Your task to perform on an android device: Open the calendar app, open the side menu, and click the "Day" option Image 0: 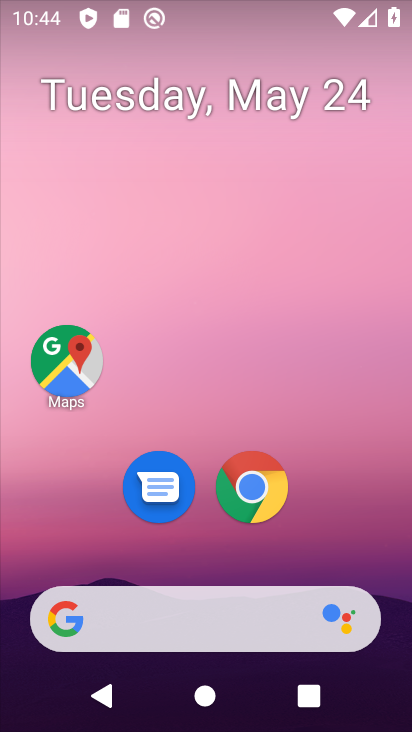
Step 0: drag from (189, 561) to (219, 90)
Your task to perform on an android device: Open the calendar app, open the side menu, and click the "Day" option Image 1: 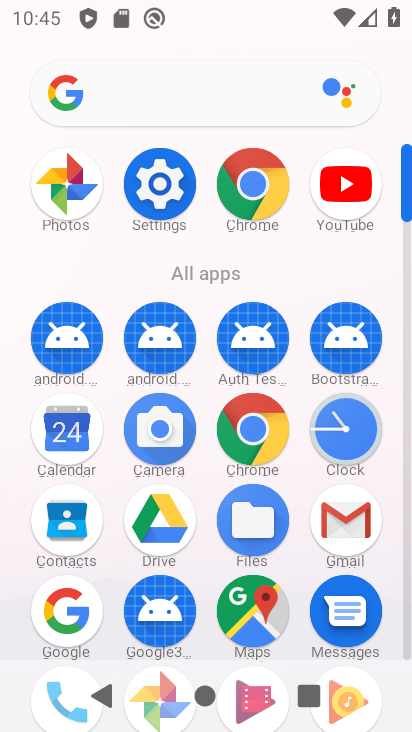
Step 1: click (60, 437)
Your task to perform on an android device: Open the calendar app, open the side menu, and click the "Day" option Image 2: 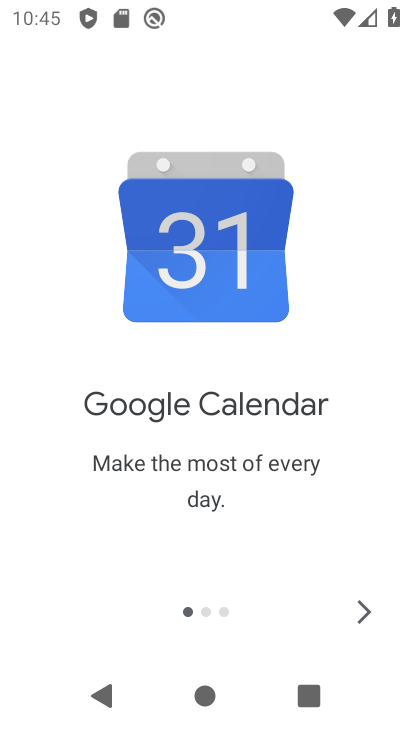
Step 2: click (359, 609)
Your task to perform on an android device: Open the calendar app, open the side menu, and click the "Day" option Image 3: 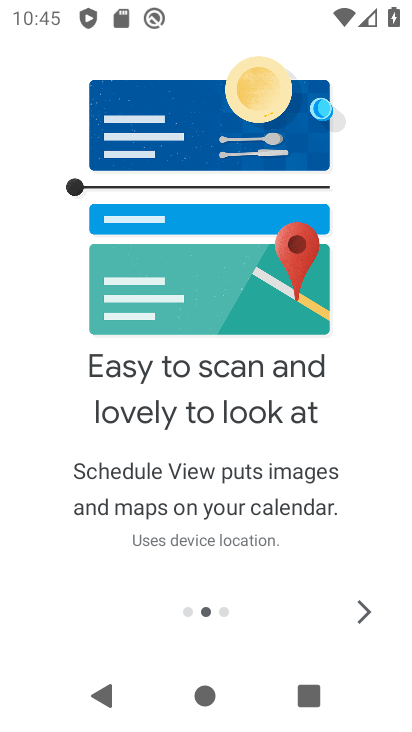
Step 3: click (357, 603)
Your task to perform on an android device: Open the calendar app, open the side menu, and click the "Day" option Image 4: 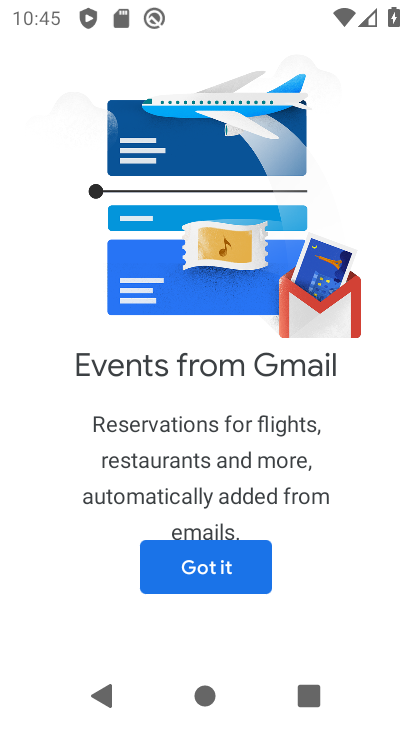
Step 4: click (246, 572)
Your task to perform on an android device: Open the calendar app, open the side menu, and click the "Day" option Image 5: 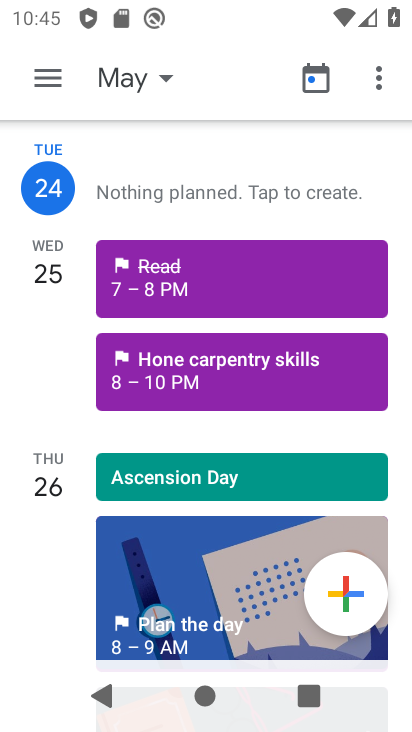
Step 5: click (46, 72)
Your task to perform on an android device: Open the calendar app, open the side menu, and click the "Day" option Image 6: 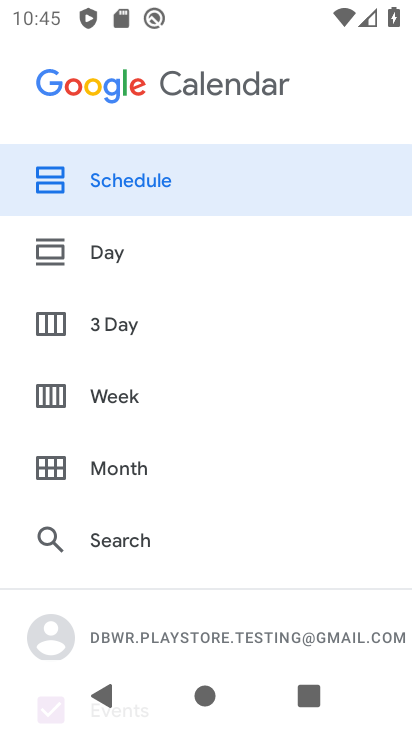
Step 6: click (105, 251)
Your task to perform on an android device: Open the calendar app, open the side menu, and click the "Day" option Image 7: 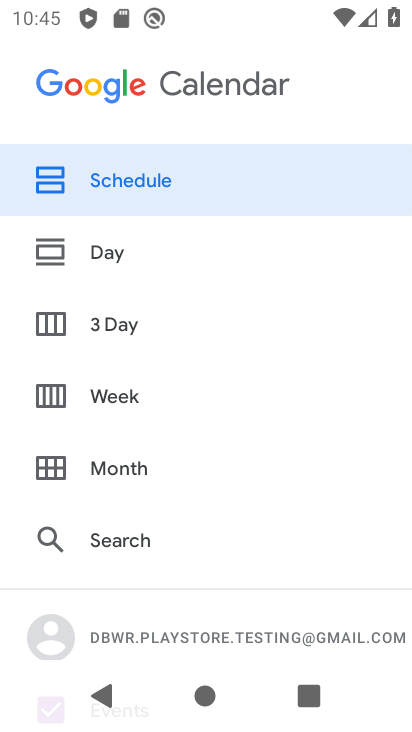
Step 7: click (97, 253)
Your task to perform on an android device: Open the calendar app, open the side menu, and click the "Day" option Image 8: 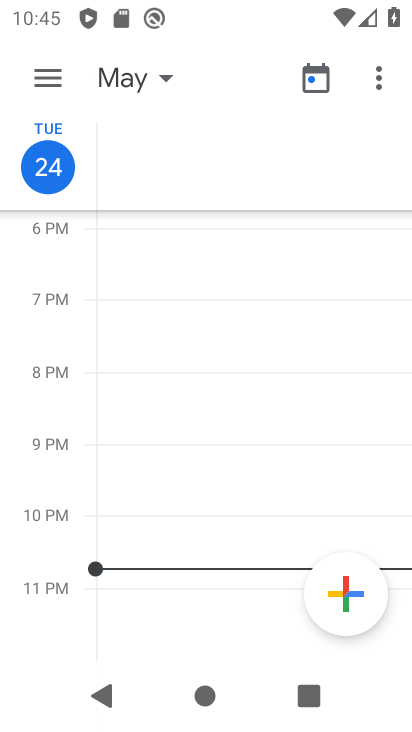
Step 8: task complete